Your task to perform on an android device: When is my next appointment? Image 0: 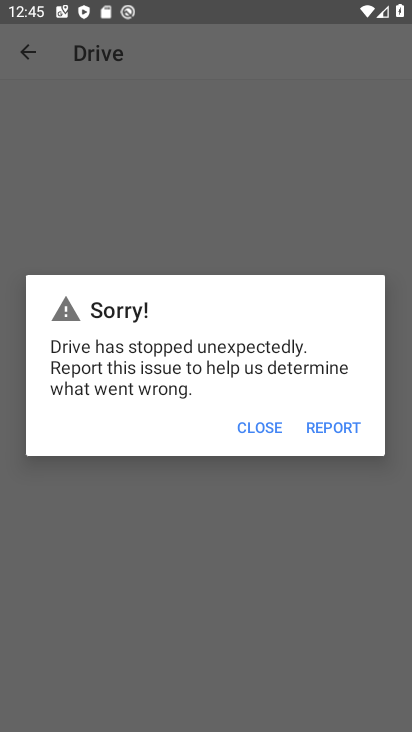
Step 0: press back button
Your task to perform on an android device: When is my next appointment? Image 1: 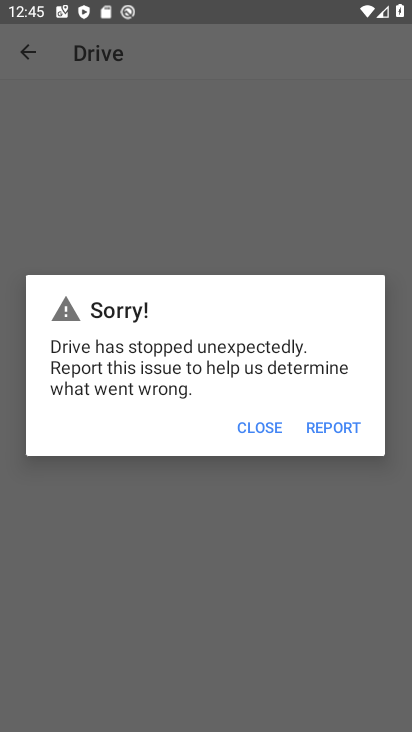
Step 1: press home button
Your task to perform on an android device: When is my next appointment? Image 2: 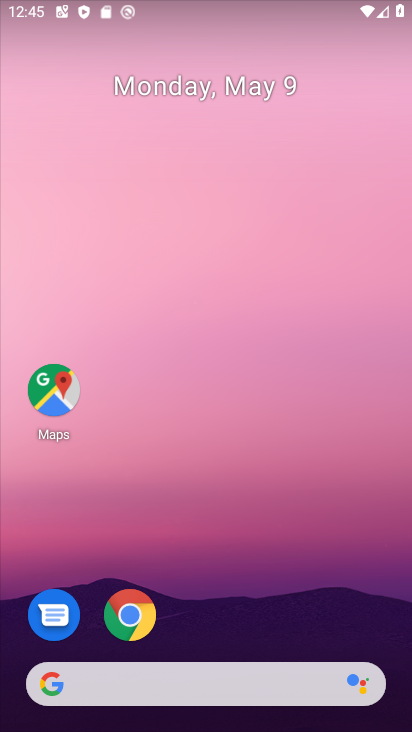
Step 2: drag from (249, 582) to (163, 76)
Your task to perform on an android device: When is my next appointment? Image 3: 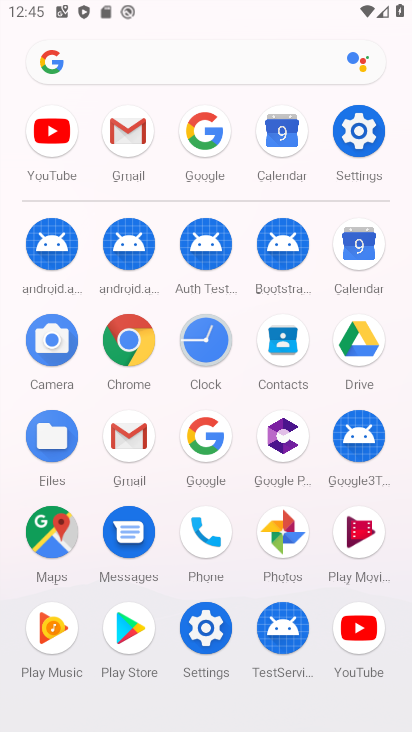
Step 3: click (358, 244)
Your task to perform on an android device: When is my next appointment? Image 4: 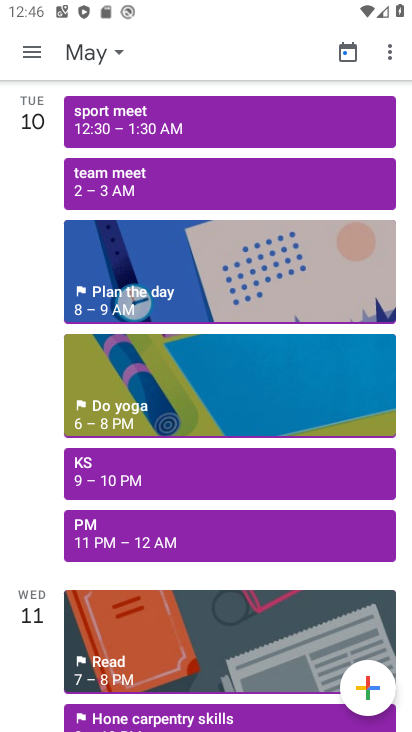
Step 4: click (115, 50)
Your task to perform on an android device: When is my next appointment? Image 5: 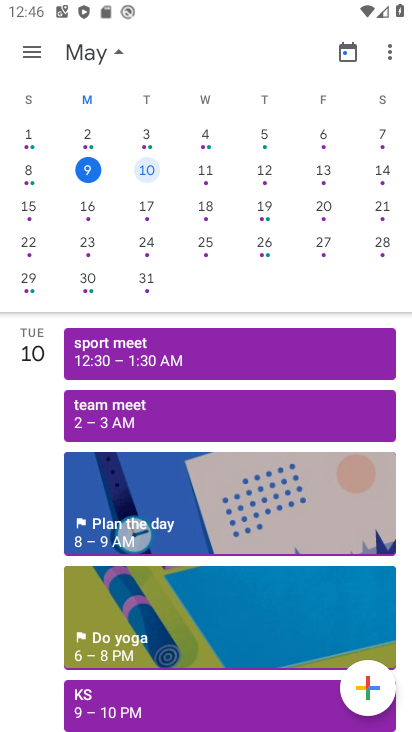
Step 5: click (155, 173)
Your task to perform on an android device: When is my next appointment? Image 6: 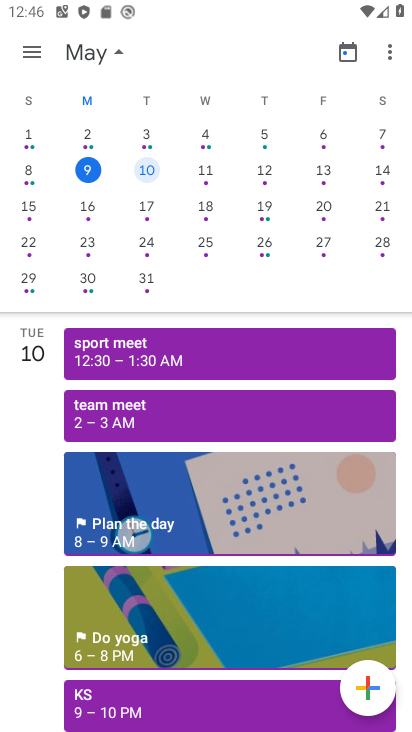
Step 6: task complete